Your task to perform on an android device: Is it going to rain today? Image 0: 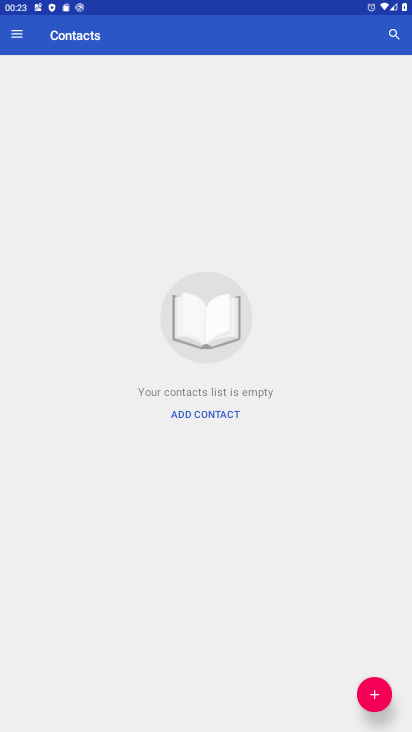
Step 0: press home button
Your task to perform on an android device: Is it going to rain today? Image 1: 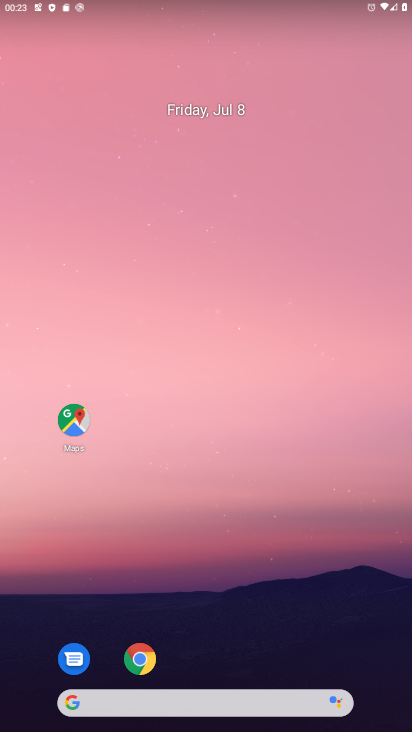
Step 1: click (160, 703)
Your task to perform on an android device: Is it going to rain today? Image 2: 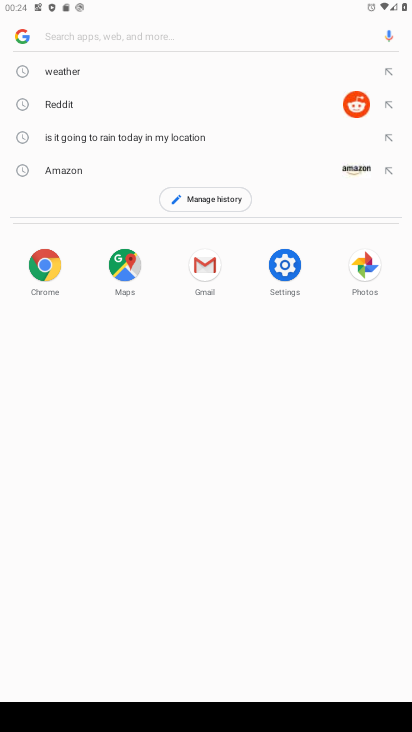
Step 2: click (138, 79)
Your task to perform on an android device: Is it going to rain today? Image 3: 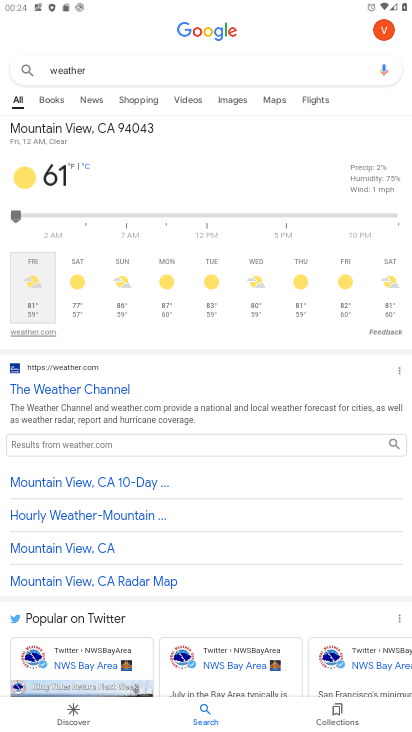
Step 3: task complete